Your task to perform on an android device: visit the assistant section in the google photos Image 0: 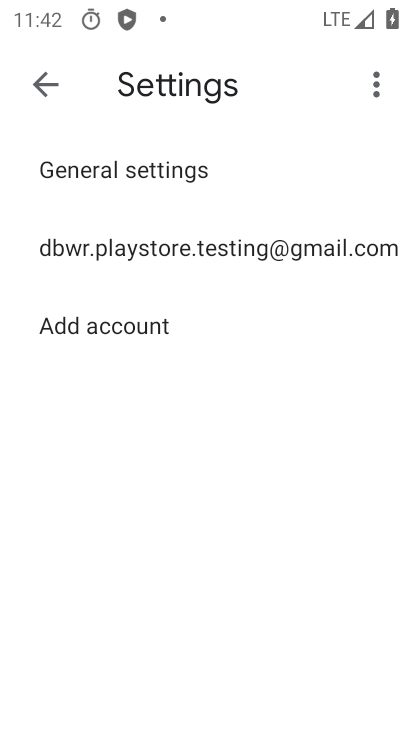
Step 0: click (288, 237)
Your task to perform on an android device: visit the assistant section in the google photos Image 1: 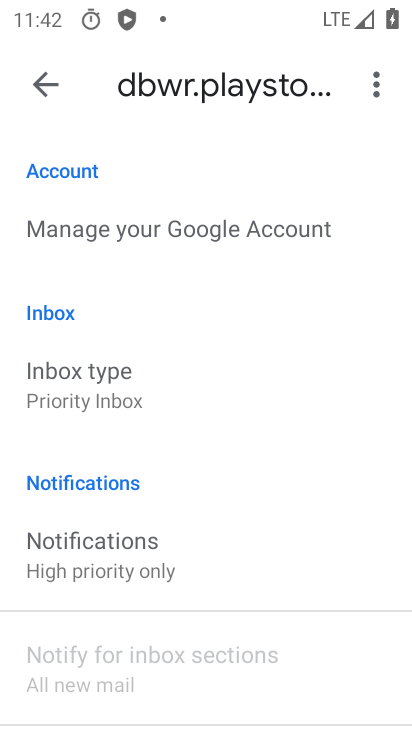
Step 1: press home button
Your task to perform on an android device: visit the assistant section in the google photos Image 2: 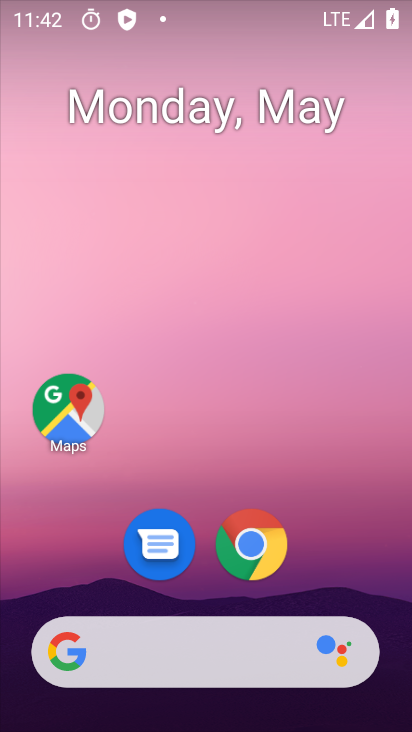
Step 2: drag from (374, 576) to (291, 91)
Your task to perform on an android device: visit the assistant section in the google photos Image 3: 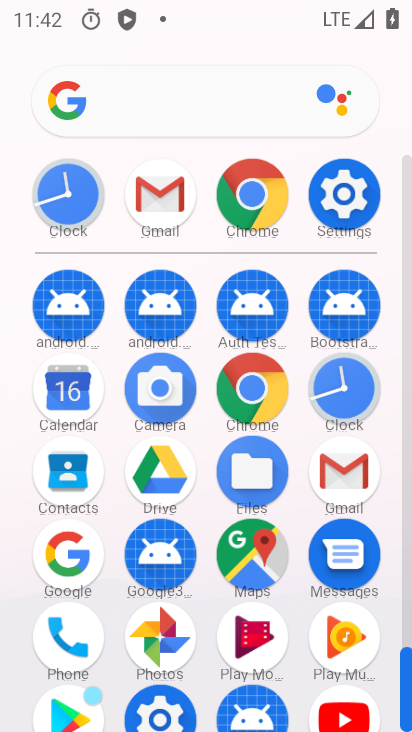
Step 3: click (192, 628)
Your task to perform on an android device: visit the assistant section in the google photos Image 4: 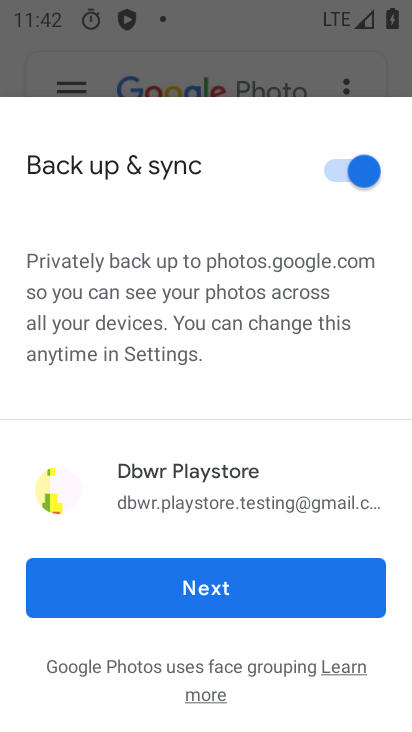
Step 4: click (265, 583)
Your task to perform on an android device: visit the assistant section in the google photos Image 5: 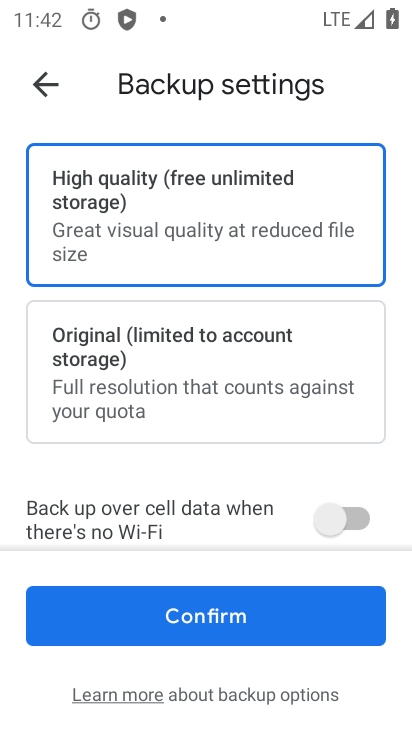
Step 5: click (244, 618)
Your task to perform on an android device: visit the assistant section in the google photos Image 6: 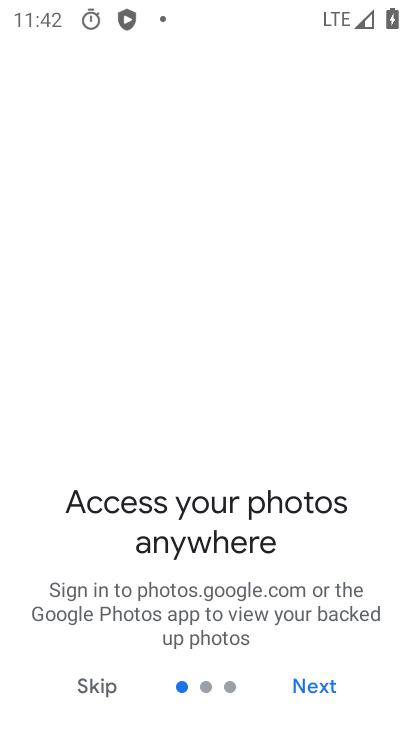
Step 6: click (308, 688)
Your task to perform on an android device: visit the assistant section in the google photos Image 7: 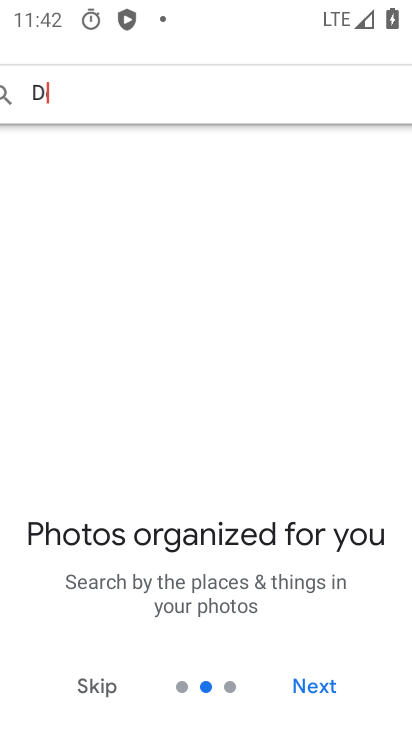
Step 7: click (327, 686)
Your task to perform on an android device: visit the assistant section in the google photos Image 8: 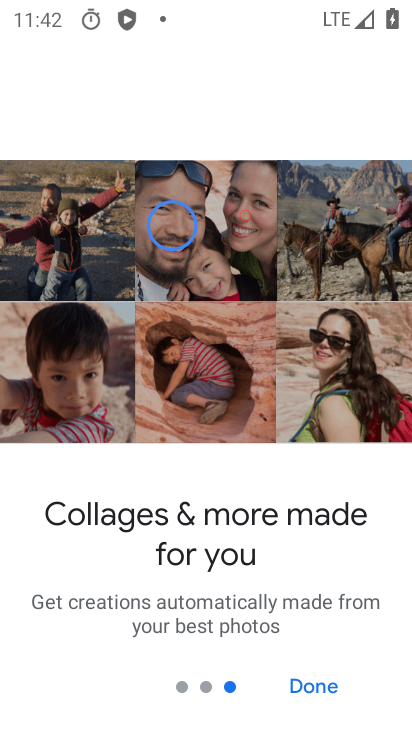
Step 8: click (327, 686)
Your task to perform on an android device: visit the assistant section in the google photos Image 9: 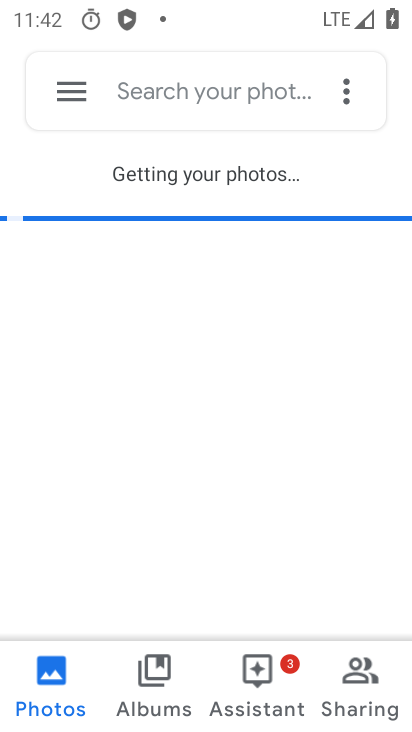
Step 9: click (245, 691)
Your task to perform on an android device: visit the assistant section in the google photos Image 10: 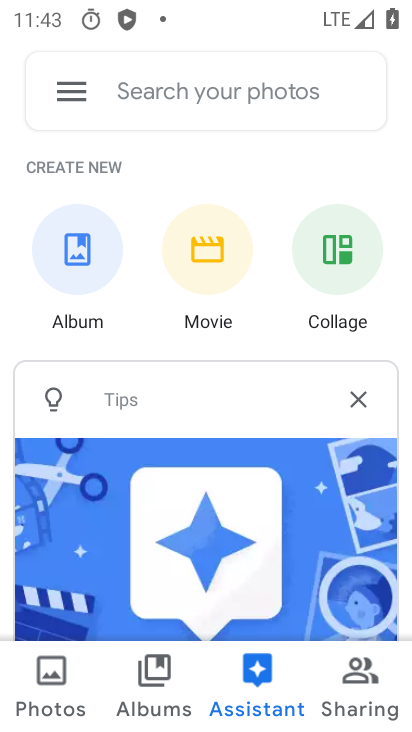
Step 10: task complete